Your task to perform on an android device: add a contact Image 0: 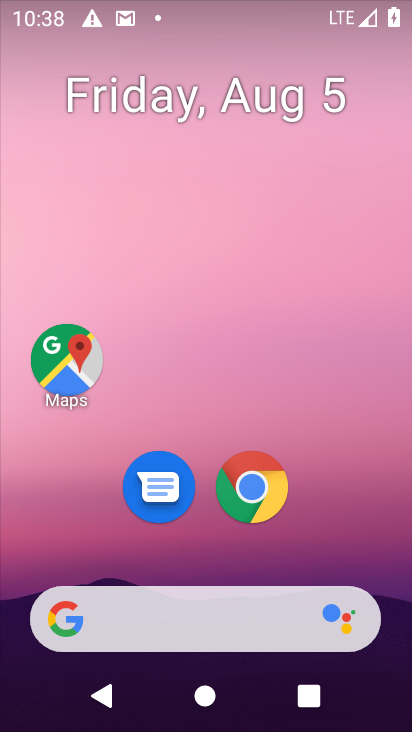
Step 0: drag from (222, 571) to (277, 0)
Your task to perform on an android device: add a contact Image 1: 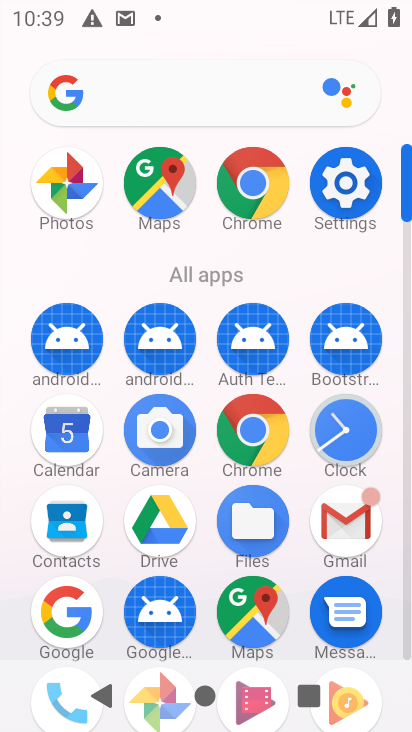
Step 1: click (73, 548)
Your task to perform on an android device: add a contact Image 2: 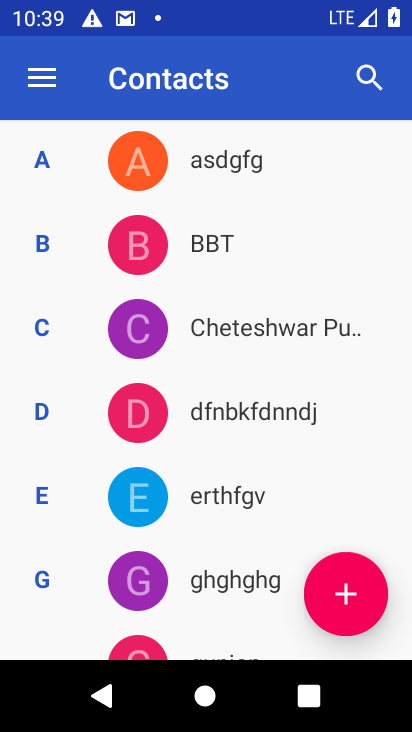
Step 2: click (353, 597)
Your task to perform on an android device: add a contact Image 3: 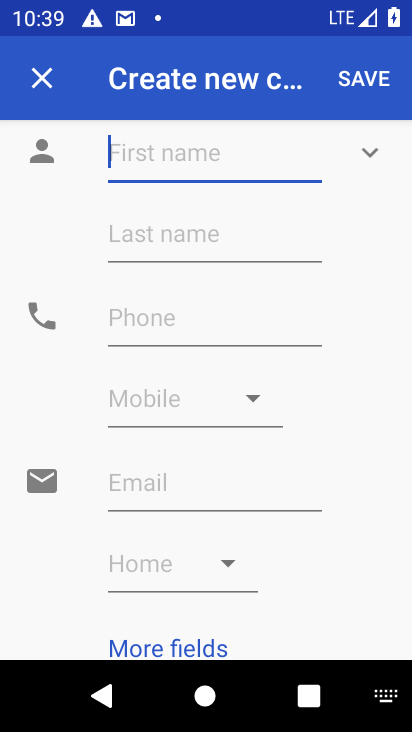
Step 3: click (135, 135)
Your task to perform on an android device: add a contact Image 4: 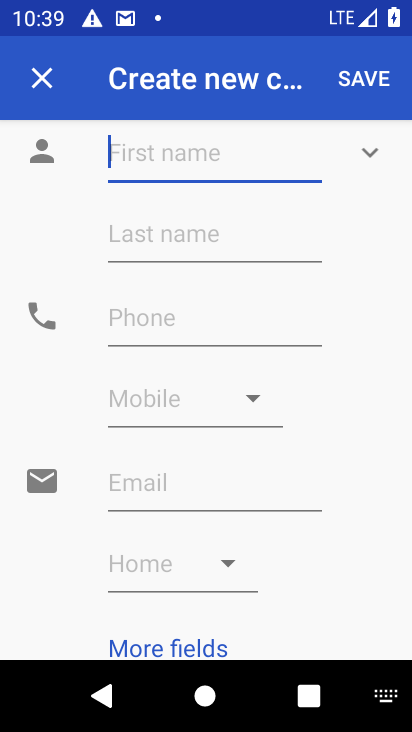
Step 4: type "fgdf"
Your task to perform on an android device: add a contact Image 5: 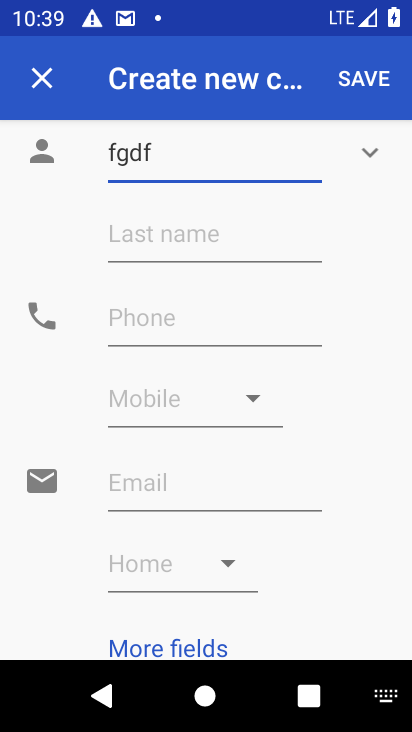
Step 5: click (193, 323)
Your task to perform on an android device: add a contact Image 6: 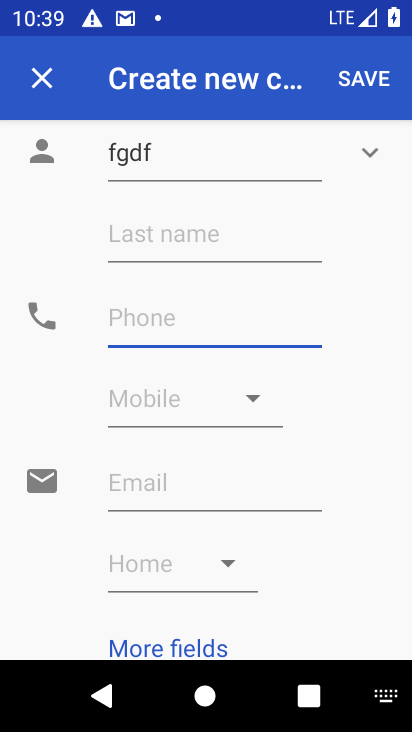
Step 6: type "56464"
Your task to perform on an android device: add a contact Image 7: 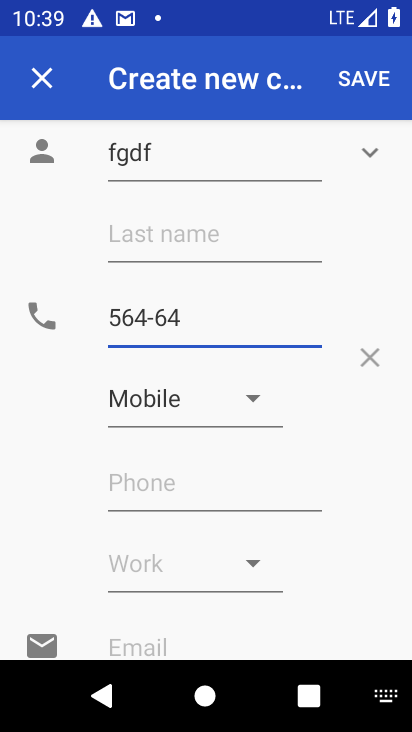
Step 7: click (361, 90)
Your task to perform on an android device: add a contact Image 8: 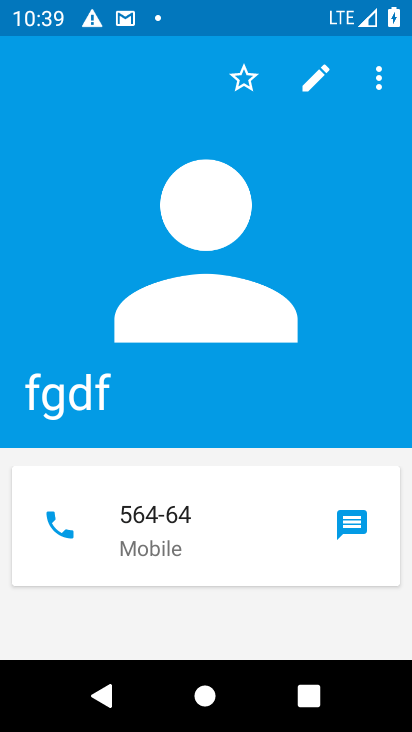
Step 8: task complete